Your task to perform on an android device: turn off sleep mode Image 0: 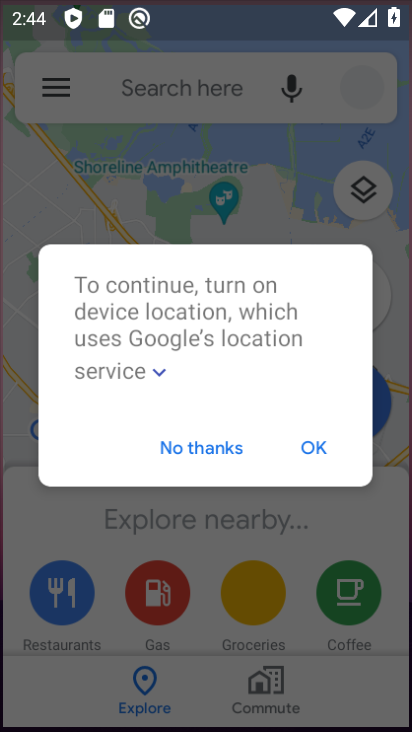
Step 0: drag from (166, 514) to (280, 25)
Your task to perform on an android device: turn off sleep mode Image 1: 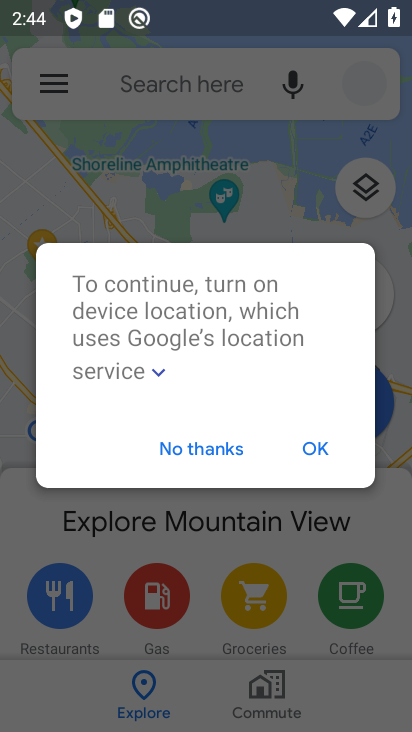
Step 1: press home button
Your task to perform on an android device: turn off sleep mode Image 2: 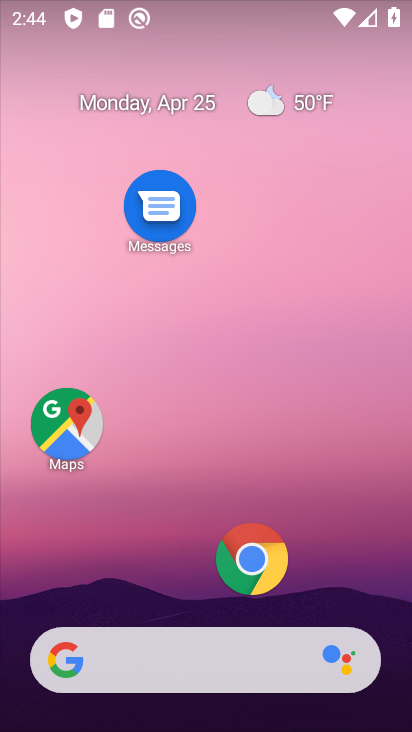
Step 2: drag from (193, 563) to (271, 33)
Your task to perform on an android device: turn off sleep mode Image 3: 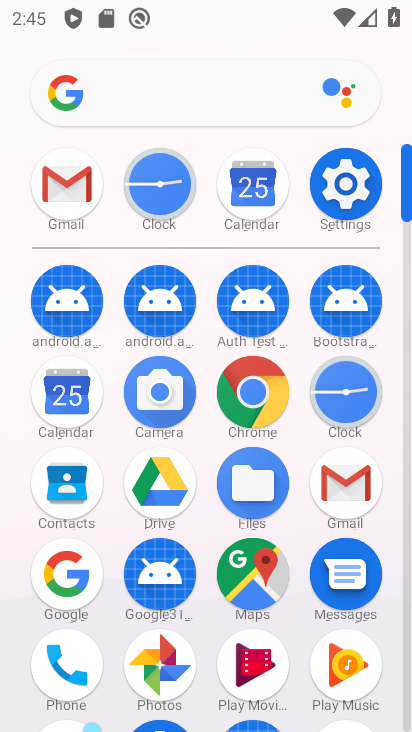
Step 3: click (340, 214)
Your task to perform on an android device: turn off sleep mode Image 4: 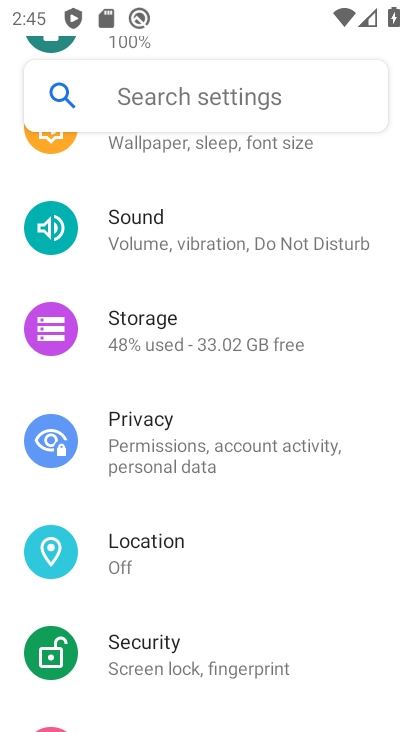
Step 4: click (223, 99)
Your task to perform on an android device: turn off sleep mode Image 5: 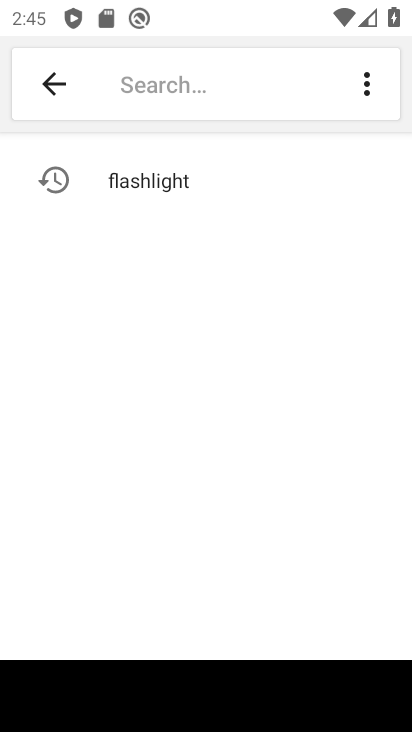
Step 5: type "sleep mode"
Your task to perform on an android device: turn off sleep mode Image 6: 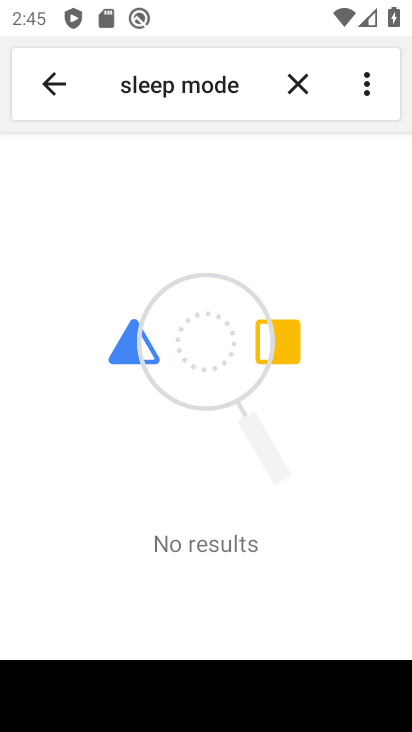
Step 6: task complete